Your task to perform on an android device: Go to internet settings Image 0: 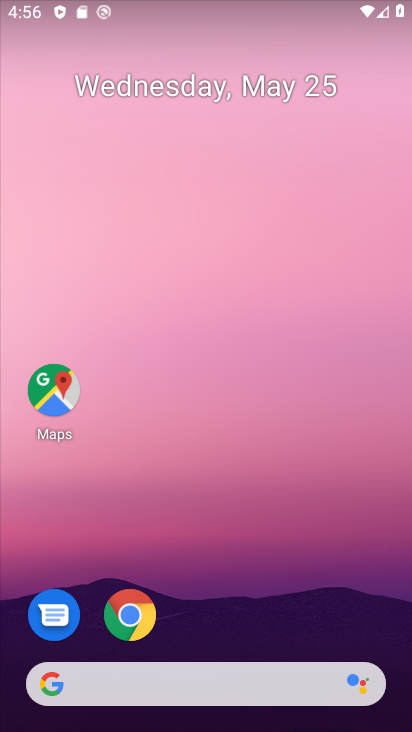
Step 0: drag from (244, 621) to (282, 107)
Your task to perform on an android device: Go to internet settings Image 1: 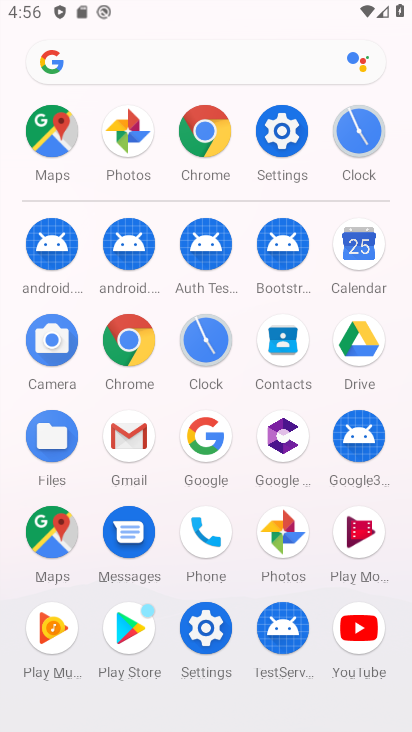
Step 1: click (289, 130)
Your task to perform on an android device: Go to internet settings Image 2: 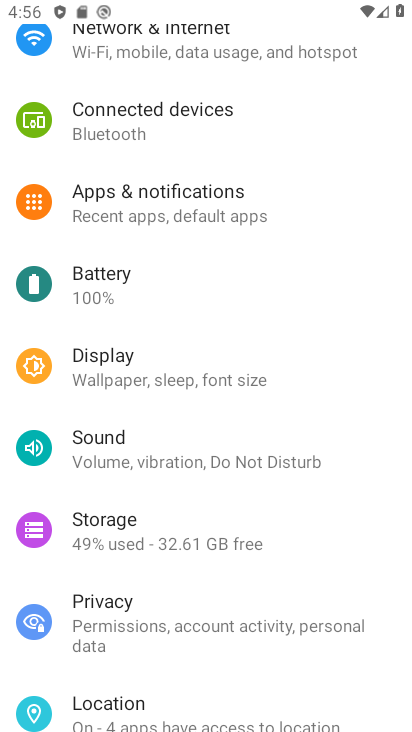
Step 2: drag from (241, 108) to (317, 714)
Your task to perform on an android device: Go to internet settings Image 3: 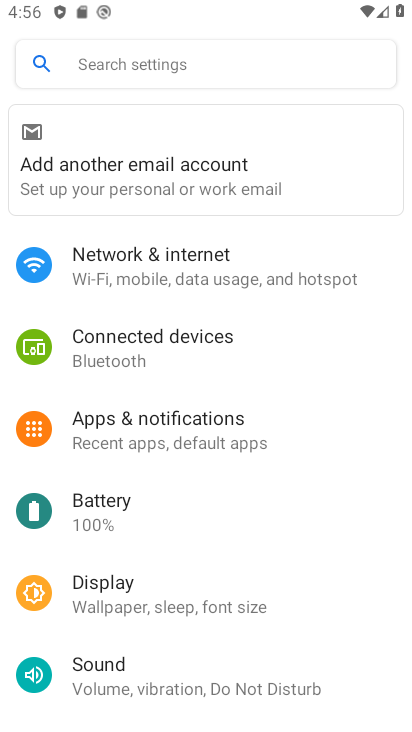
Step 3: click (184, 283)
Your task to perform on an android device: Go to internet settings Image 4: 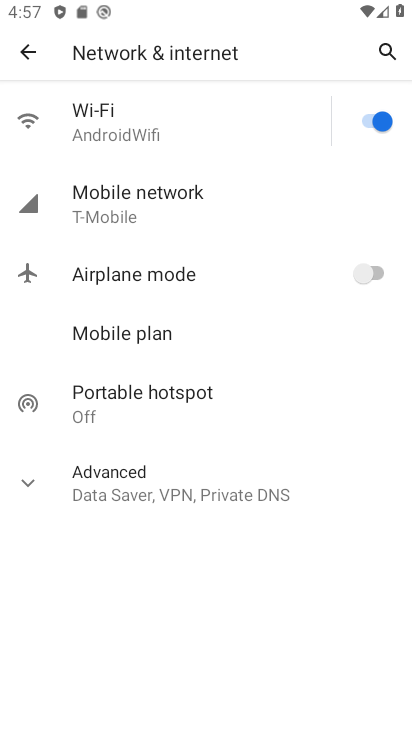
Step 4: task complete